Your task to perform on an android device: Go to network settings Image 0: 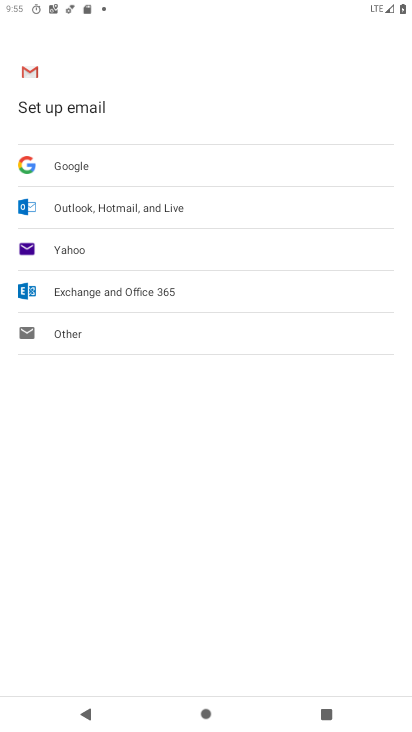
Step 0: press home button
Your task to perform on an android device: Go to network settings Image 1: 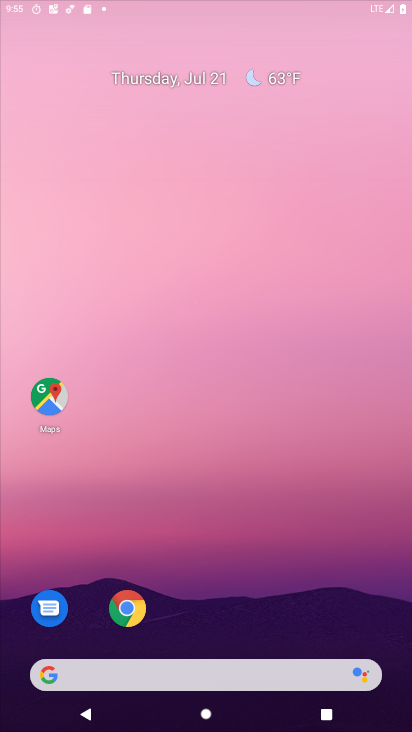
Step 1: drag from (216, 703) to (288, 171)
Your task to perform on an android device: Go to network settings Image 2: 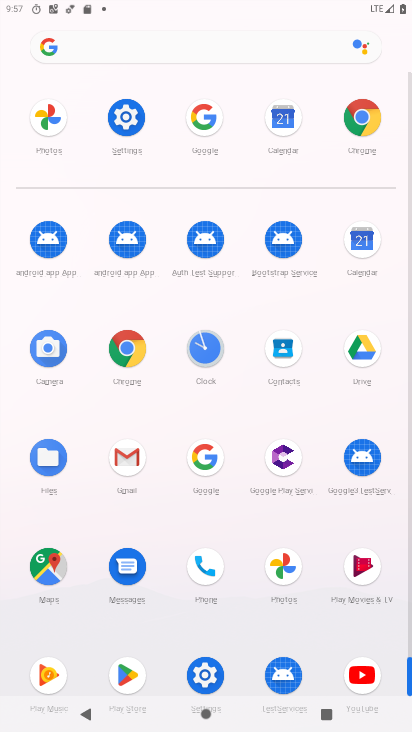
Step 2: click (129, 131)
Your task to perform on an android device: Go to network settings Image 3: 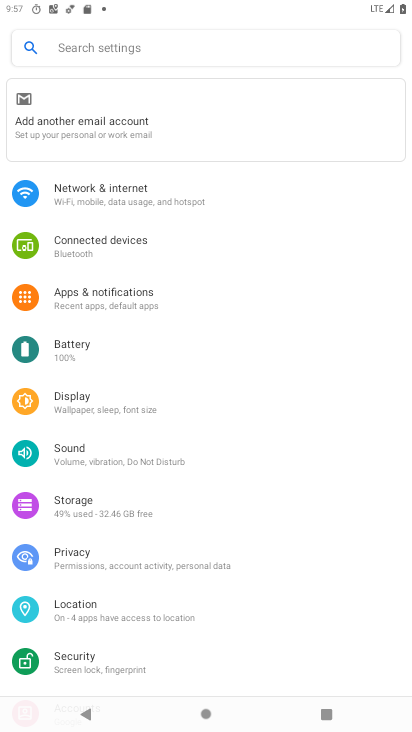
Step 3: click (130, 131)
Your task to perform on an android device: Go to network settings Image 4: 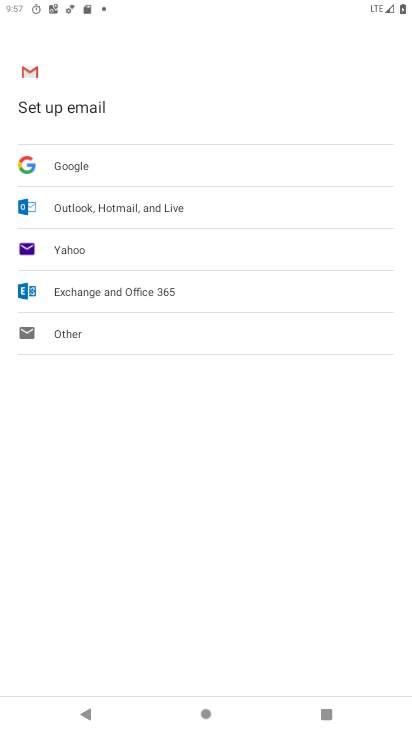
Step 4: press back button
Your task to perform on an android device: Go to network settings Image 5: 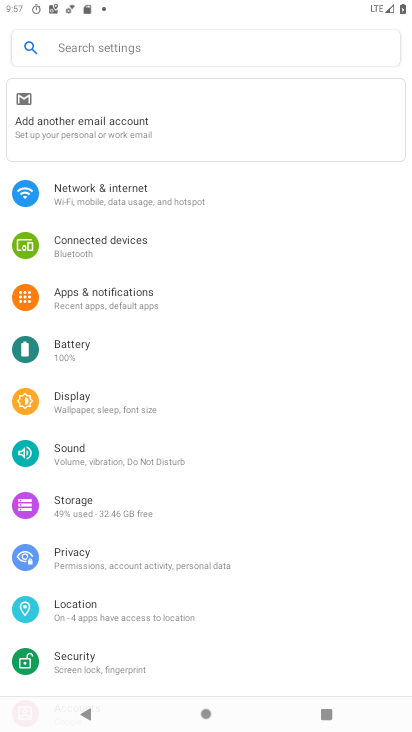
Step 5: click (94, 199)
Your task to perform on an android device: Go to network settings Image 6: 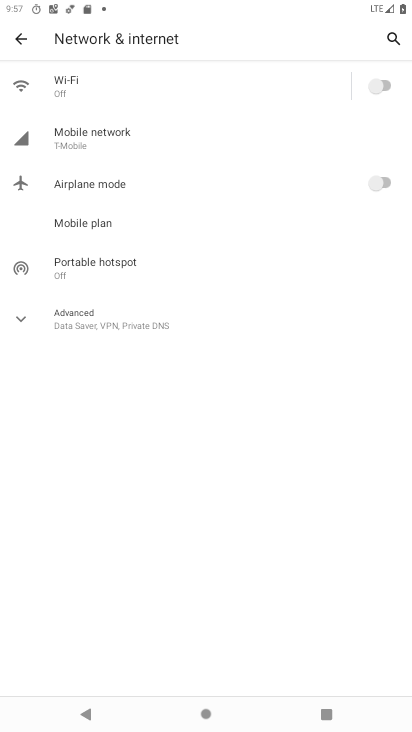
Step 6: click (101, 138)
Your task to perform on an android device: Go to network settings Image 7: 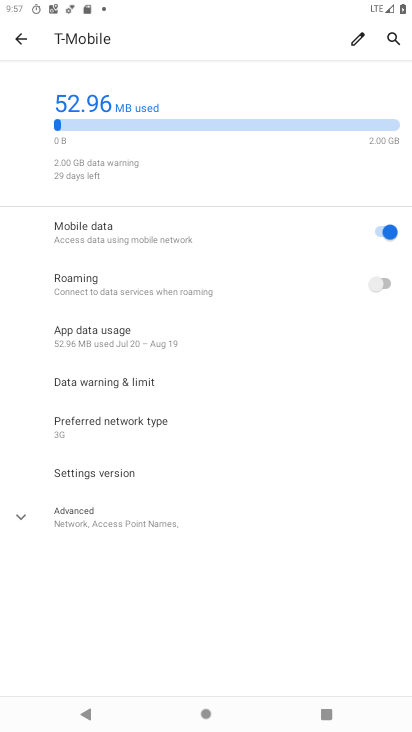
Step 7: task complete